Your task to perform on an android device: add a contact Image 0: 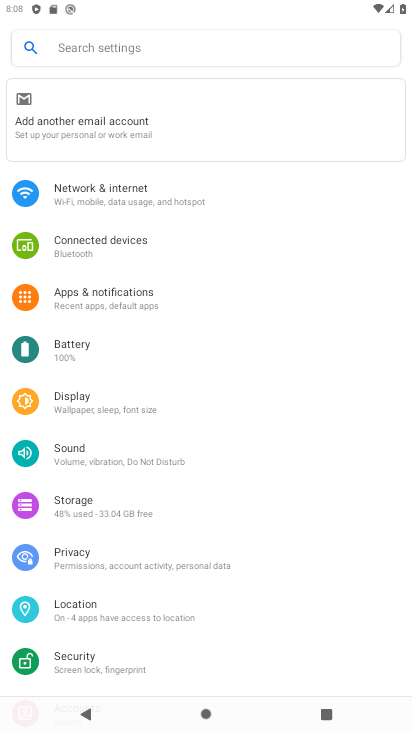
Step 0: press home button
Your task to perform on an android device: add a contact Image 1: 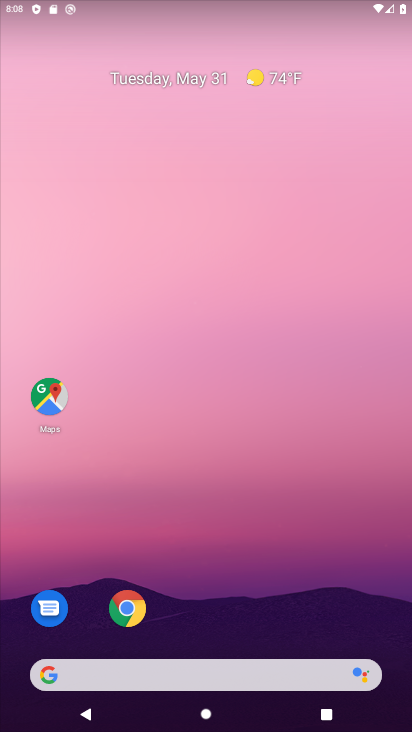
Step 1: drag from (190, 636) to (173, 18)
Your task to perform on an android device: add a contact Image 2: 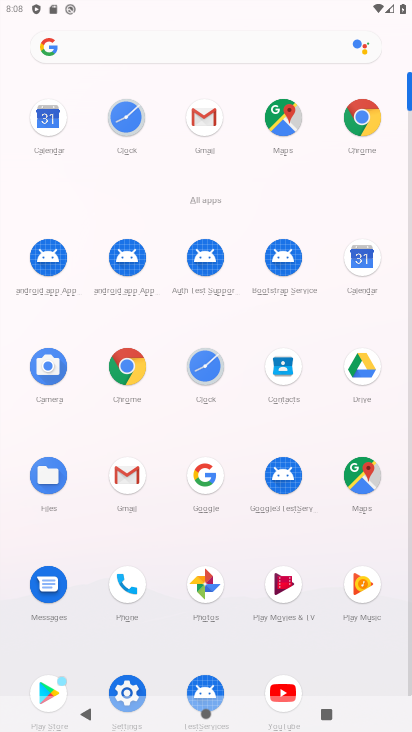
Step 2: click (124, 603)
Your task to perform on an android device: add a contact Image 3: 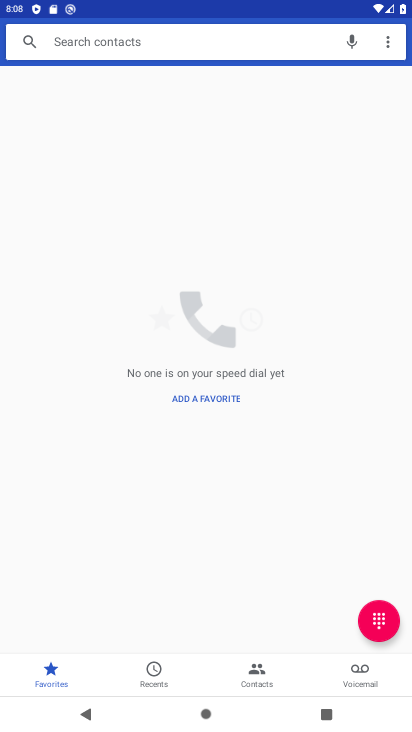
Step 3: click (259, 664)
Your task to perform on an android device: add a contact Image 4: 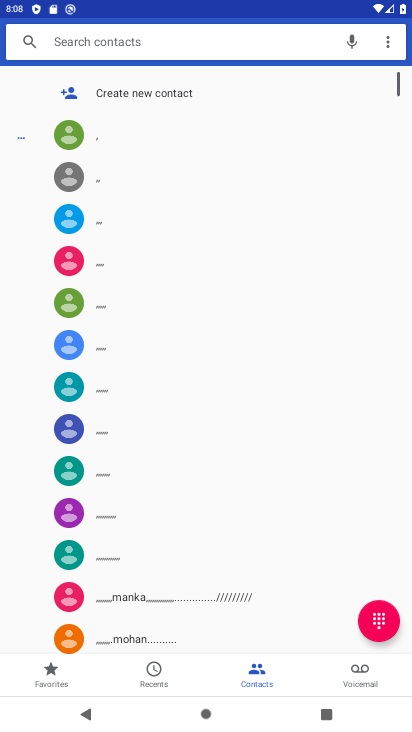
Step 4: click (140, 95)
Your task to perform on an android device: add a contact Image 5: 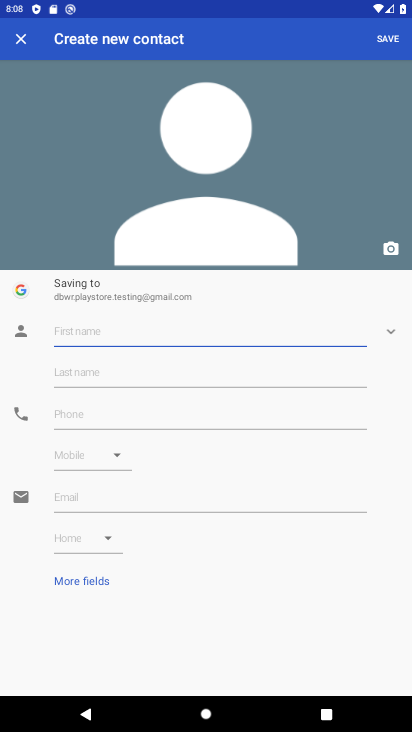
Step 5: type "bguu"
Your task to perform on an android device: add a contact Image 6: 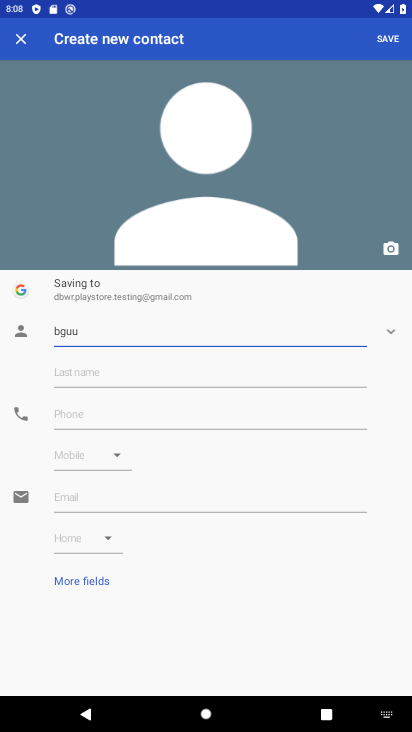
Step 6: click (108, 418)
Your task to perform on an android device: add a contact Image 7: 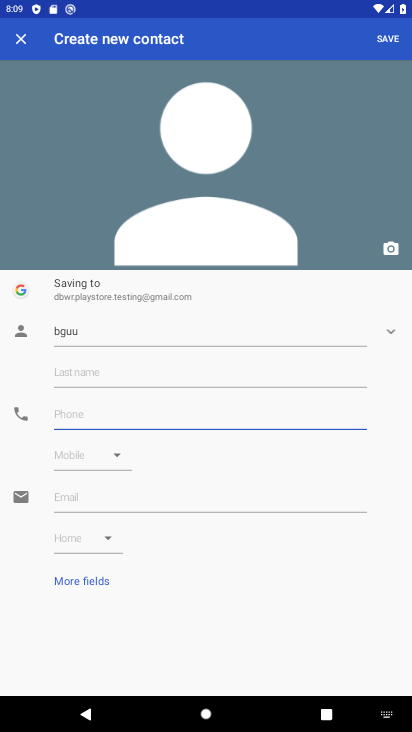
Step 7: type "543543"
Your task to perform on an android device: add a contact Image 8: 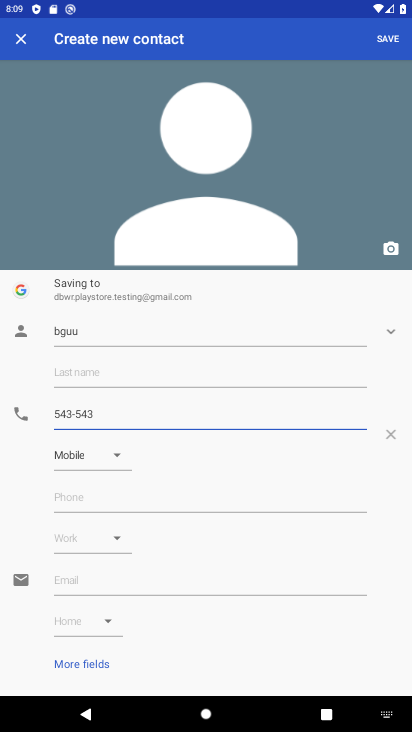
Step 8: click (384, 35)
Your task to perform on an android device: add a contact Image 9: 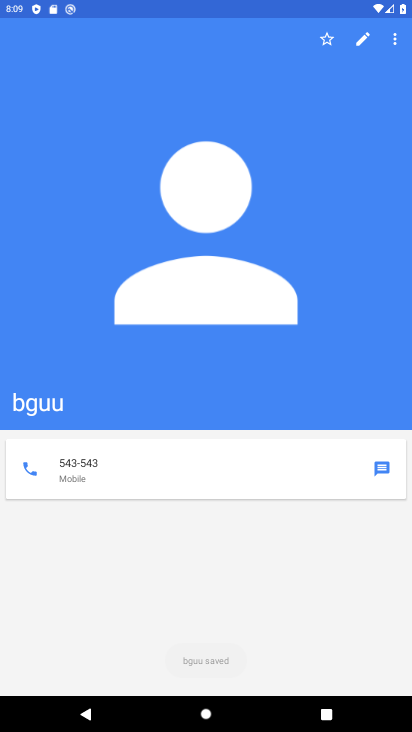
Step 9: task complete